Your task to perform on an android device: show emergency info Image 0: 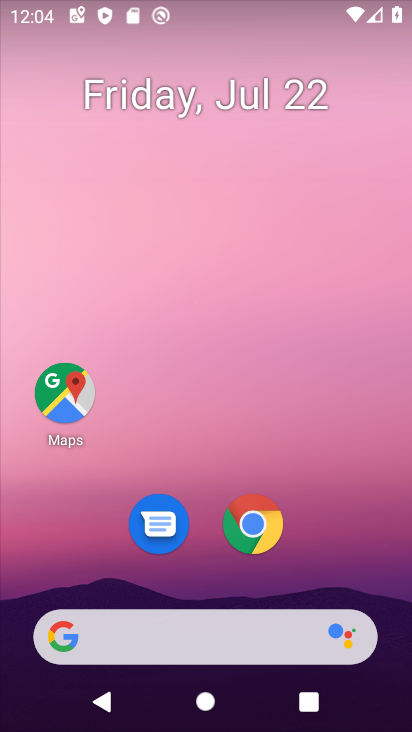
Step 0: drag from (350, 578) to (331, 43)
Your task to perform on an android device: show emergency info Image 1: 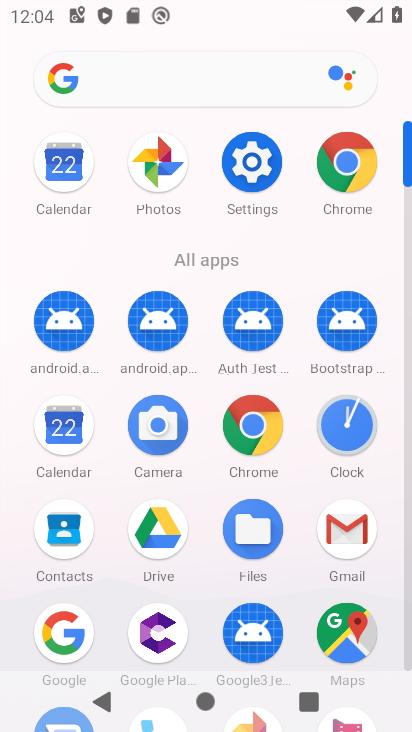
Step 1: click (252, 160)
Your task to perform on an android device: show emergency info Image 2: 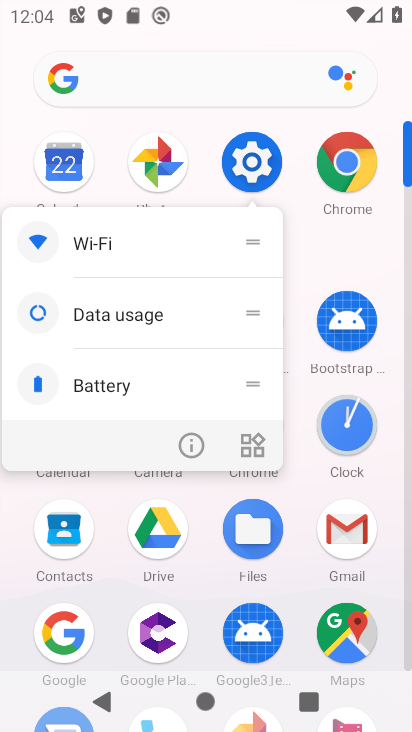
Step 2: click (249, 156)
Your task to perform on an android device: show emergency info Image 3: 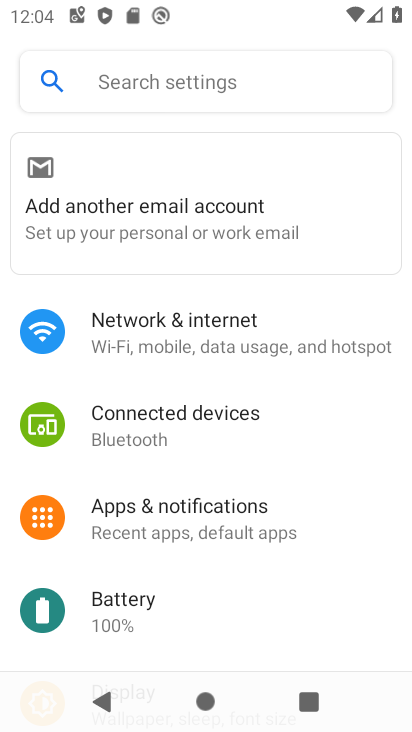
Step 3: drag from (201, 579) to (322, 0)
Your task to perform on an android device: show emergency info Image 4: 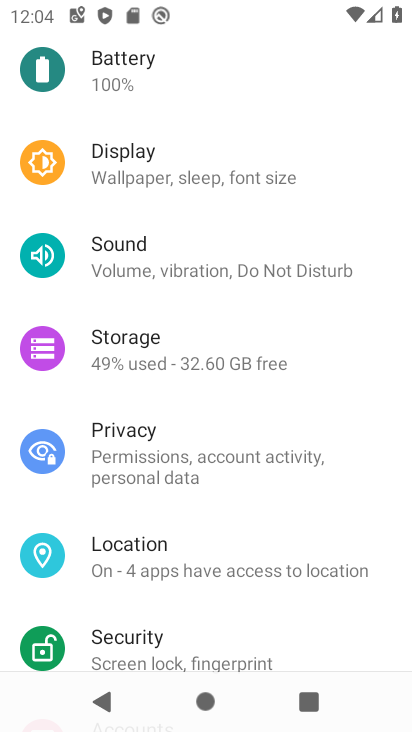
Step 4: drag from (218, 609) to (290, 0)
Your task to perform on an android device: show emergency info Image 5: 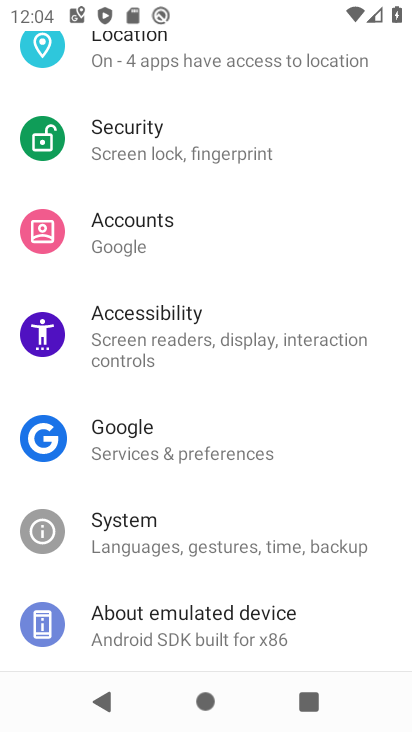
Step 5: click (179, 622)
Your task to perform on an android device: show emergency info Image 6: 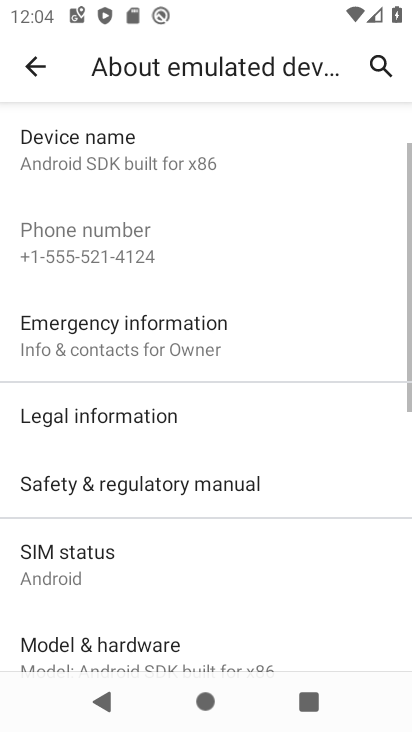
Step 6: click (199, 339)
Your task to perform on an android device: show emergency info Image 7: 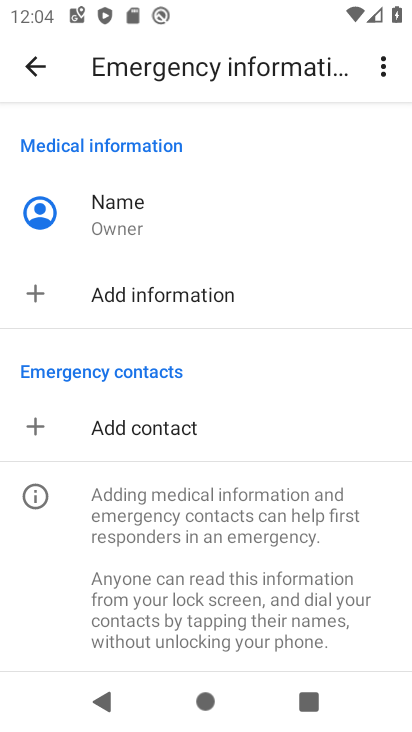
Step 7: task complete